Your task to perform on an android device: Open Google Chrome Image 0: 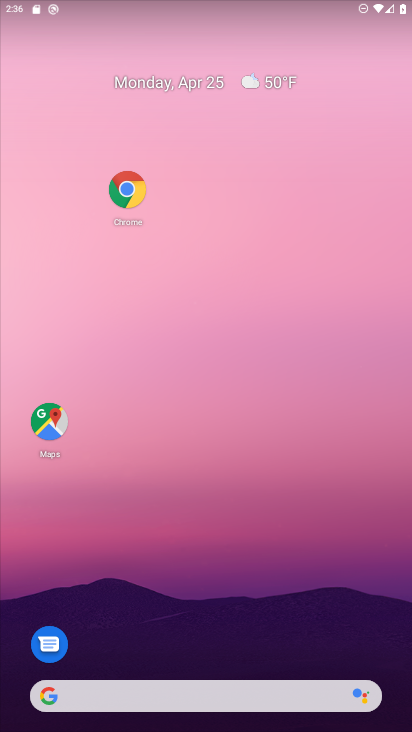
Step 0: click (132, 190)
Your task to perform on an android device: Open Google Chrome Image 1: 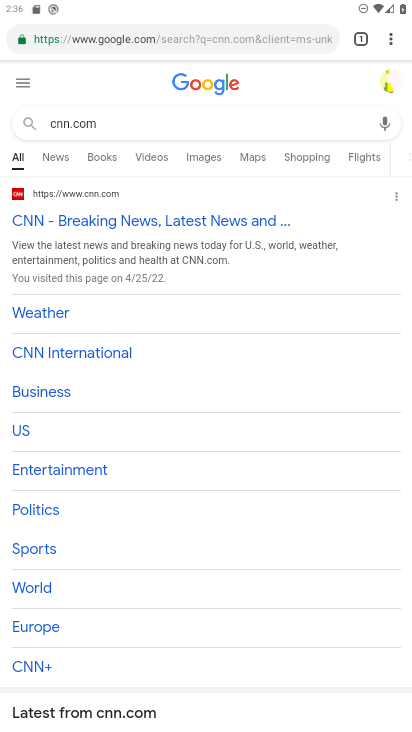
Step 1: click (130, 125)
Your task to perform on an android device: Open Google Chrome Image 2: 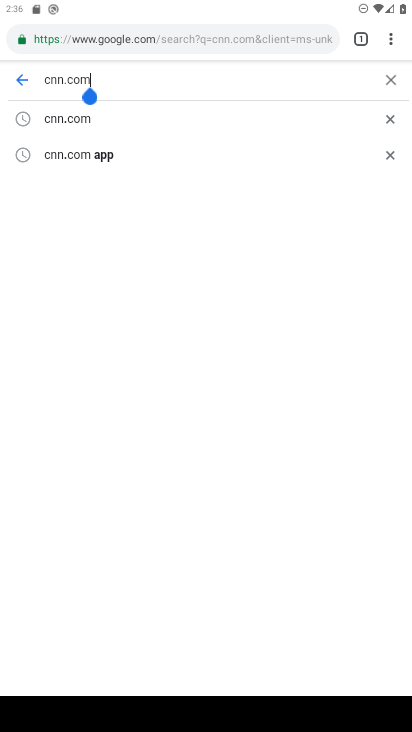
Step 2: click (388, 85)
Your task to perform on an android device: Open Google Chrome Image 3: 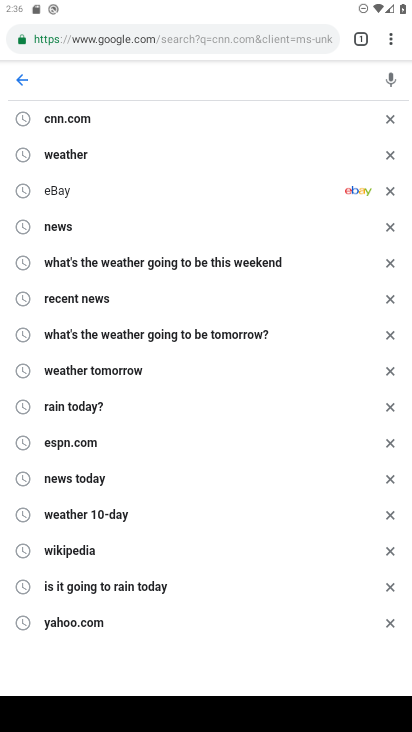
Step 3: task complete